Your task to perform on an android device: check data usage Image 0: 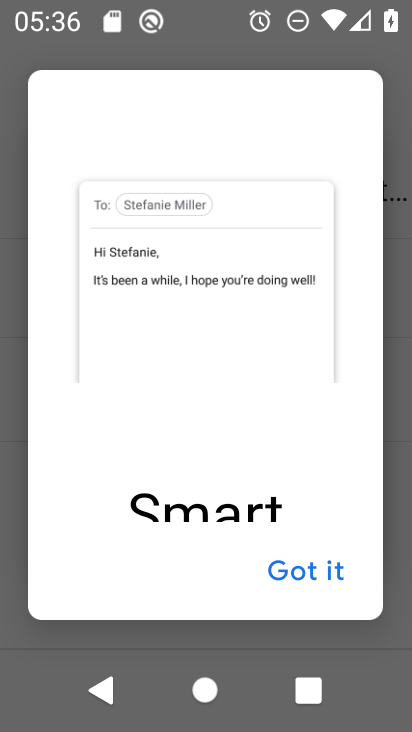
Step 0: drag from (182, 30) to (219, 521)
Your task to perform on an android device: check data usage Image 1: 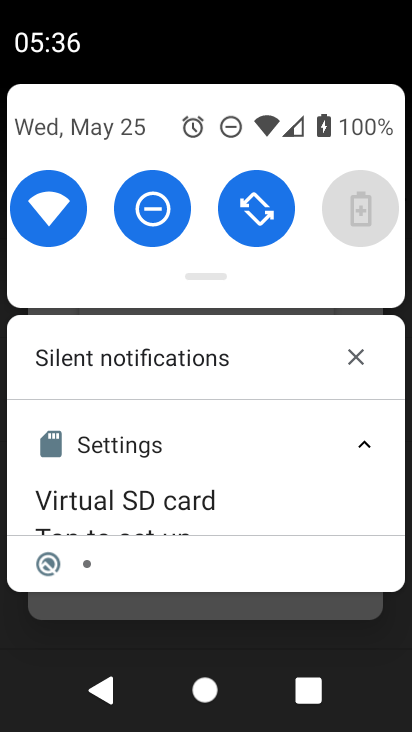
Step 1: drag from (144, 139) to (166, 709)
Your task to perform on an android device: check data usage Image 2: 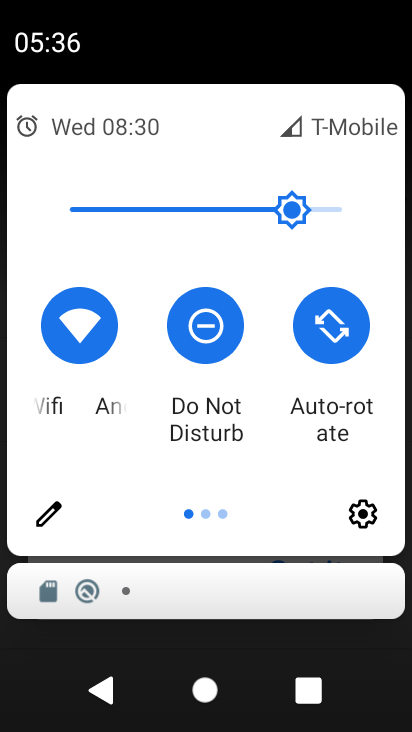
Step 2: drag from (353, 464) to (64, 460)
Your task to perform on an android device: check data usage Image 3: 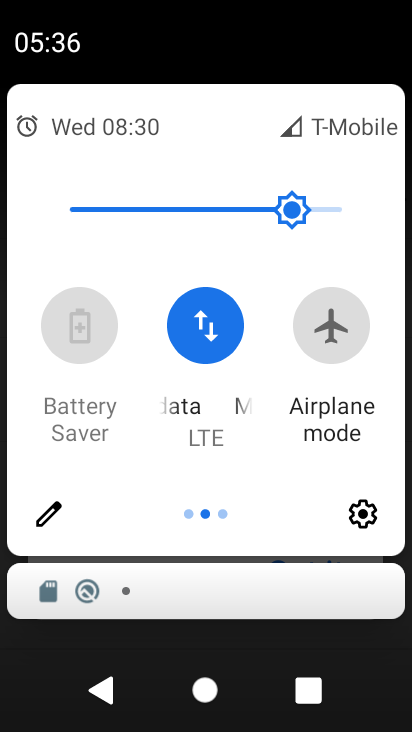
Step 3: click (203, 340)
Your task to perform on an android device: check data usage Image 4: 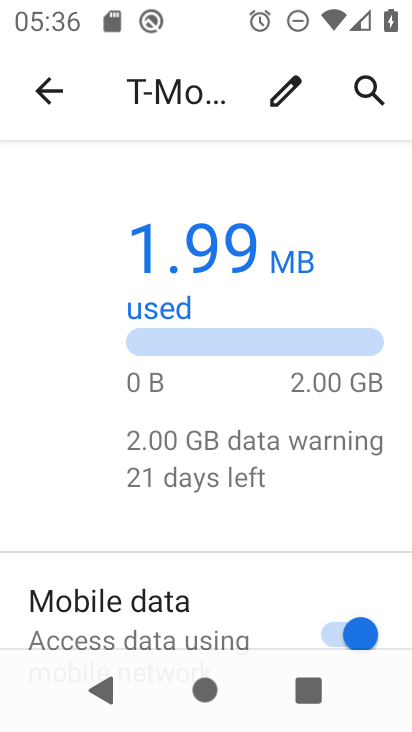
Step 4: task complete